Your task to perform on an android device: change the clock display to show seconds Image 0: 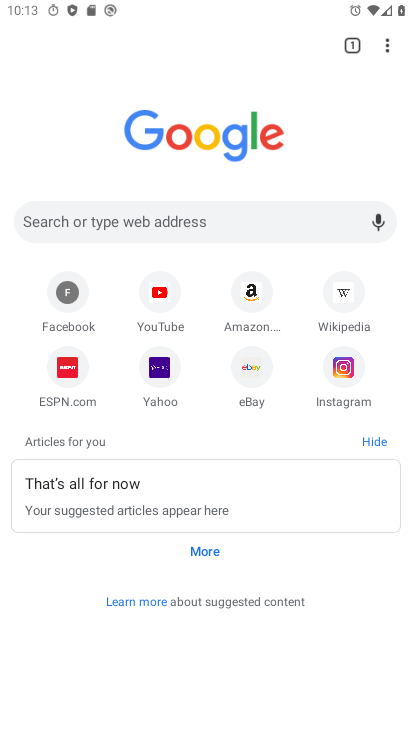
Step 0: press home button
Your task to perform on an android device: change the clock display to show seconds Image 1: 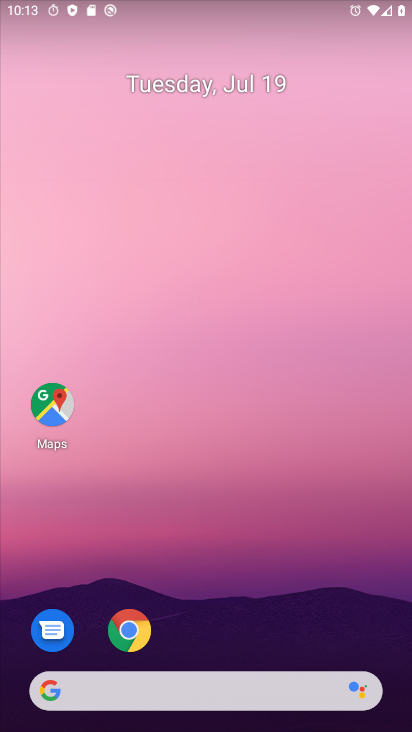
Step 1: drag from (281, 631) to (219, 18)
Your task to perform on an android device: change the clock display to show seconds Image 2: 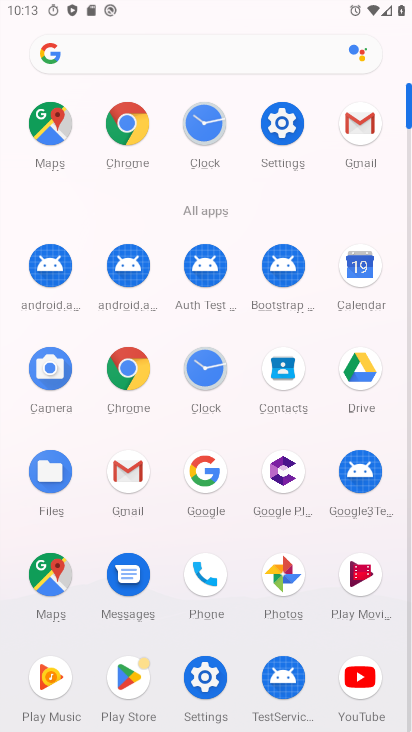
Step 2: click (189, 370)
Your task to perform on an android device: change the clock display to show seconds Image 3: 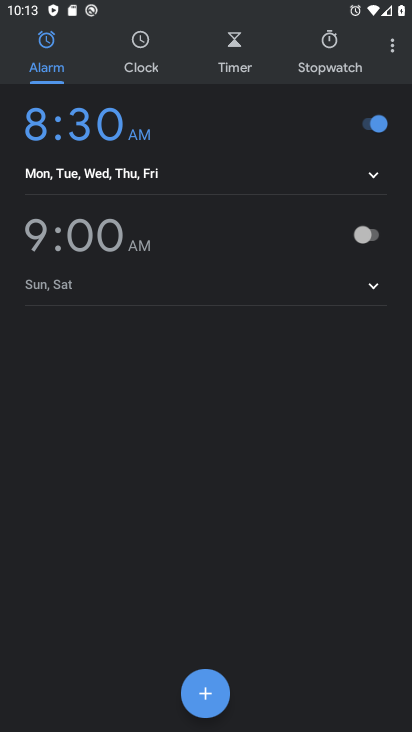
Step 3: click (396, 48)
Your task to perform on an android device: change the clock display to show seconds Image 4: 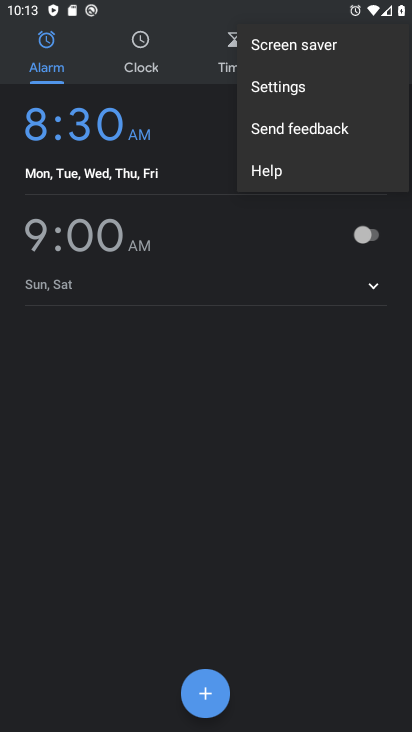
Step 4: click (300, 89)
Your task to perform on an android device: change the clock display to show seconds Image 5: 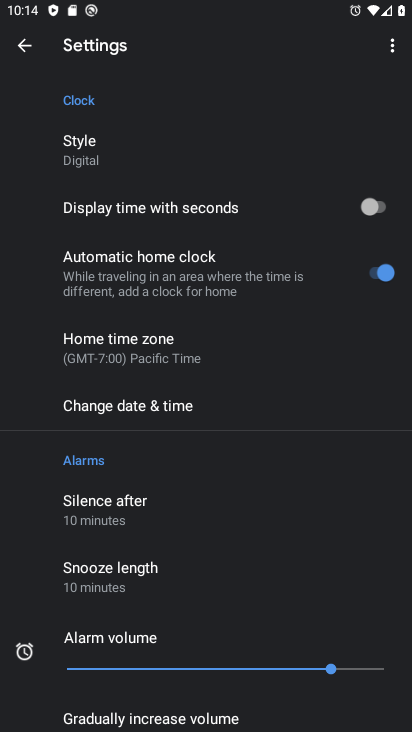
Step 5: click (367, 207)
Your task to perform on an android device: change the clock display to show seconds Image 6: 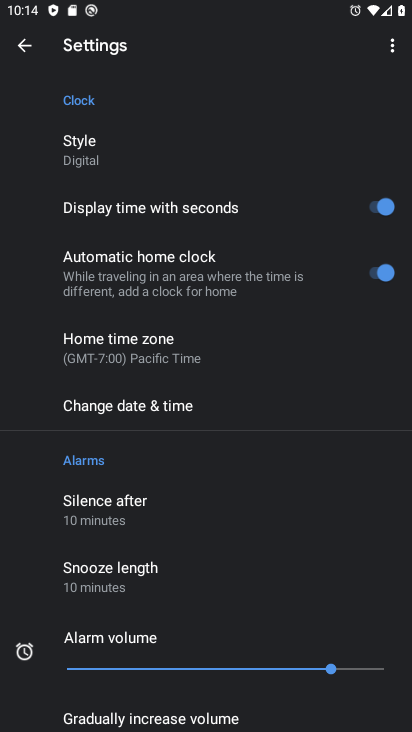
Step 6: task complete